Your task to perform on an android device: Open calendar and show me the first week of next month Image 0: 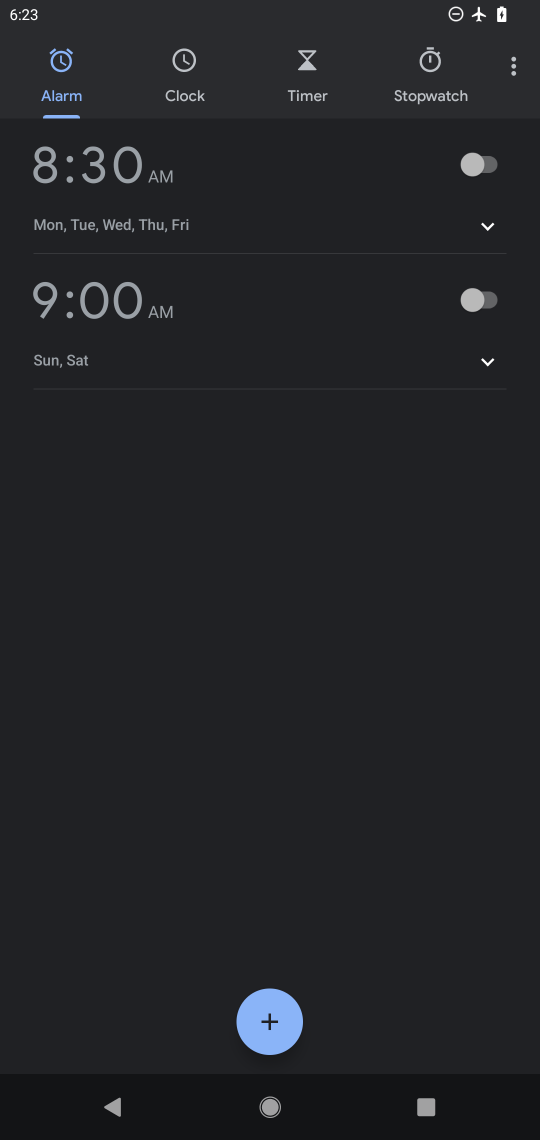
Step 0: press home button
Your task to perform on an android device: Open calendar and show me the first week of next month Image 1: 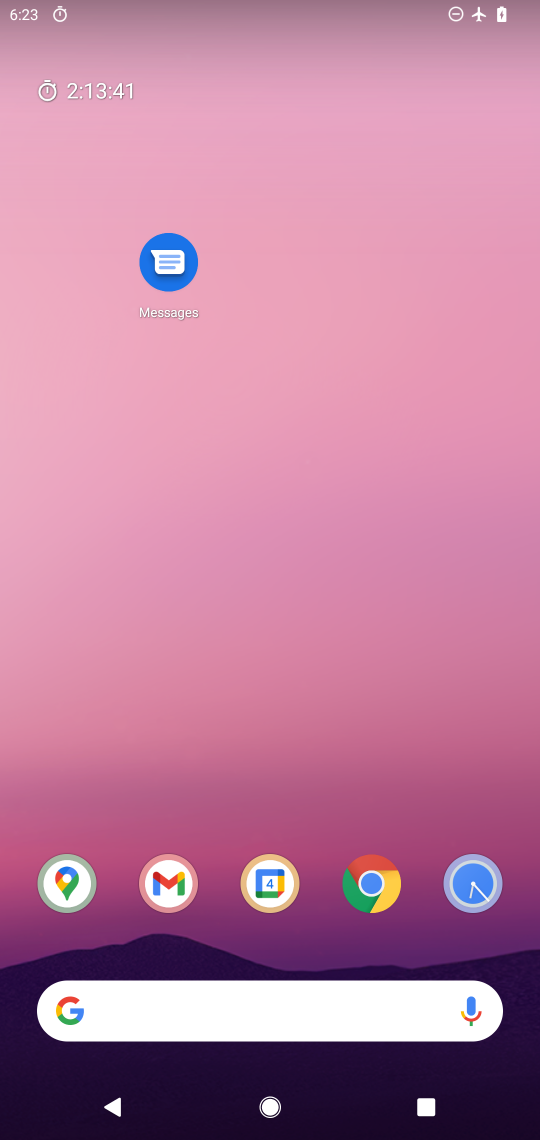
Step 1: drag from (327, 949) to (323, 72)
Your task to perform on an android device: Open calendar and show me the first week of next month Image 2: 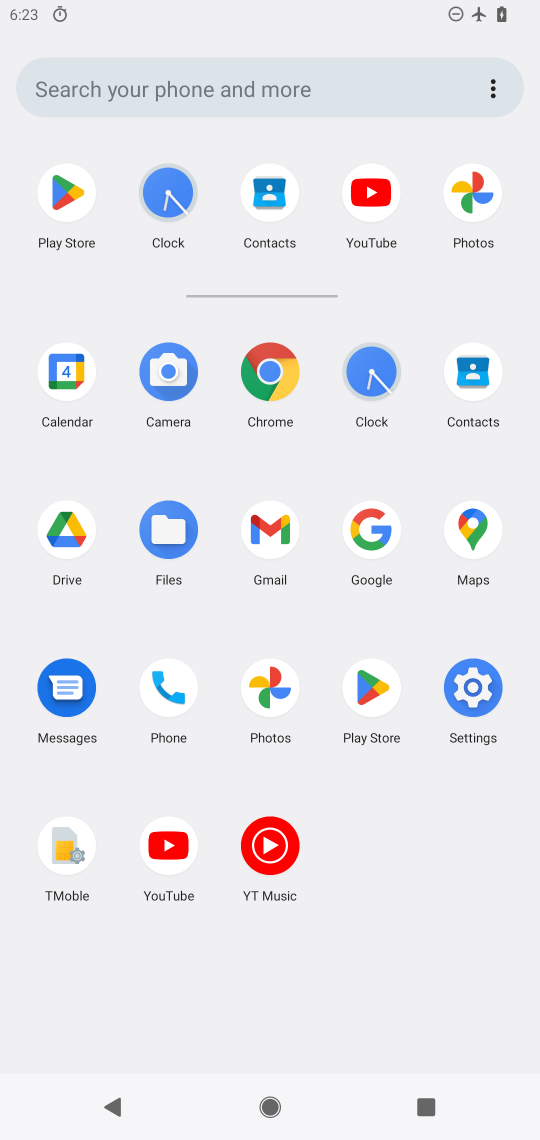
Step 2: click (56, 376)
Your task to perform on an android device: Open calendar and show me the first week of next month Image 3: 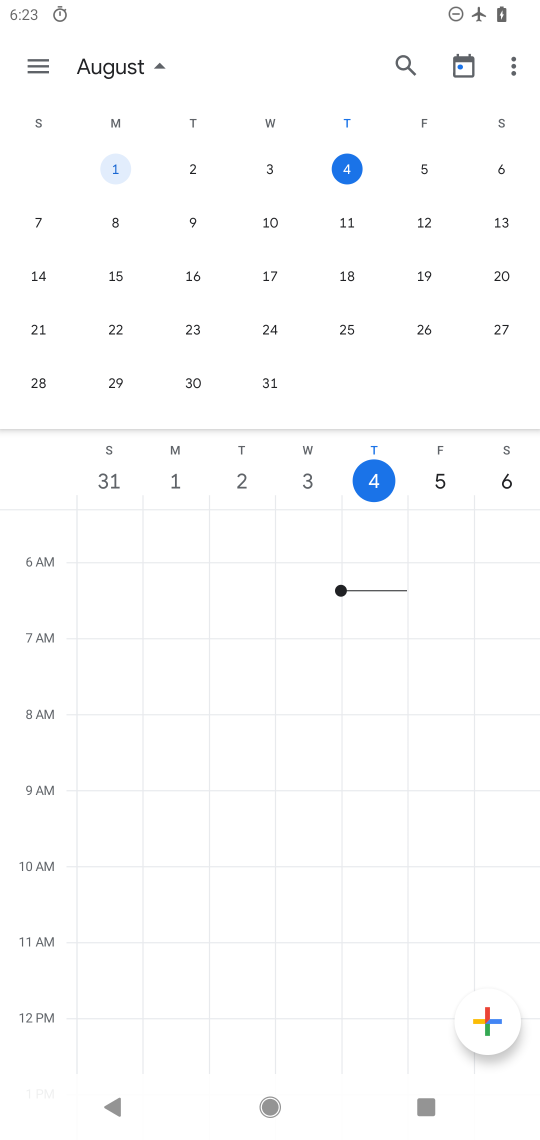
Step 3: drag from (394, 253) to (237, 254)
Your task to perform on an android device: Open calendar and show me the first week of next month Image 4: 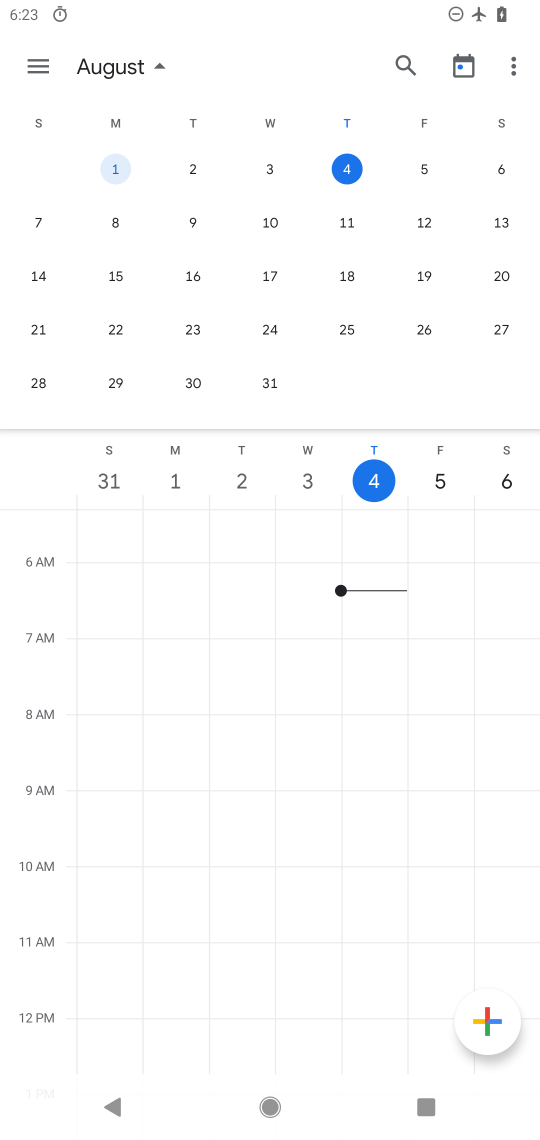
Step 4: drag from (389, 274) to (116, 275)
Your task to perform on an android device: Open calendar and show me the first week of next month Image 5: 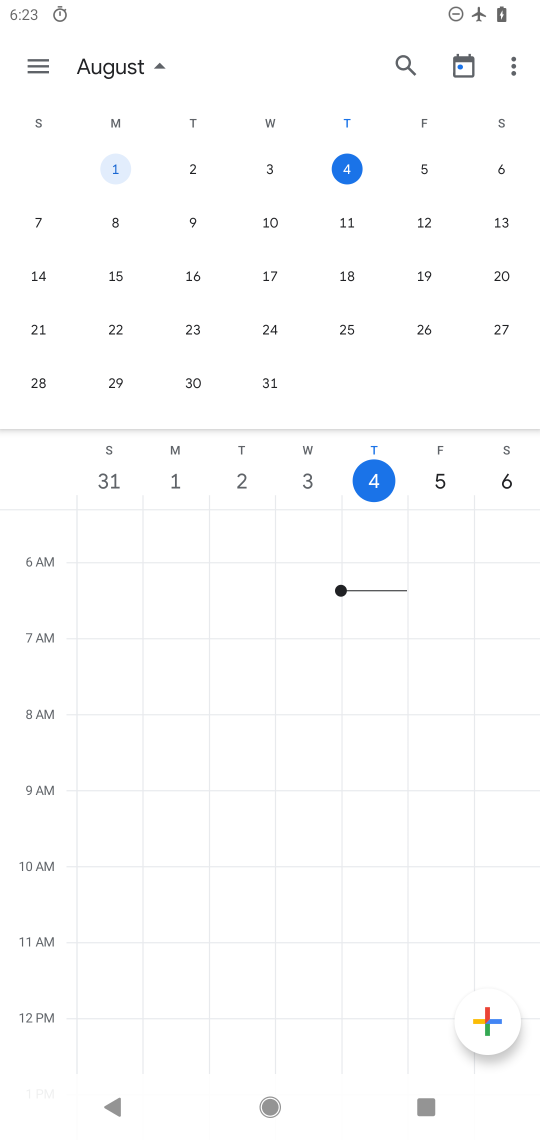
Step 5: drag from (426, 261) to (38, 250)
Your task to perform on an android device: Open calendar and show me the first week of next month Image 6: 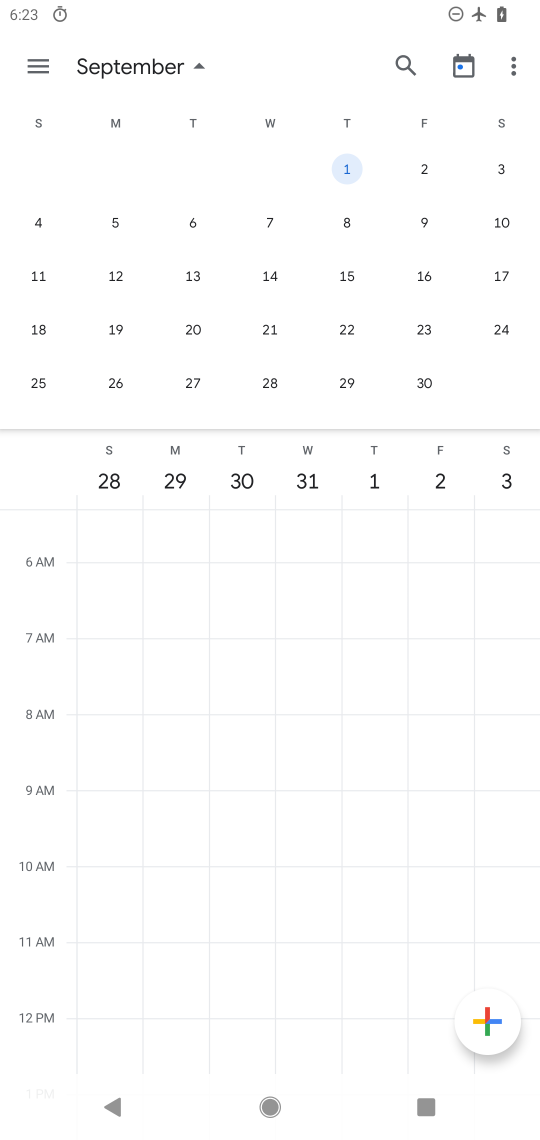
Step 6: click (114, 219)
Your task to perform on an android device: Open calendar and show me the first week of next month Image 7: 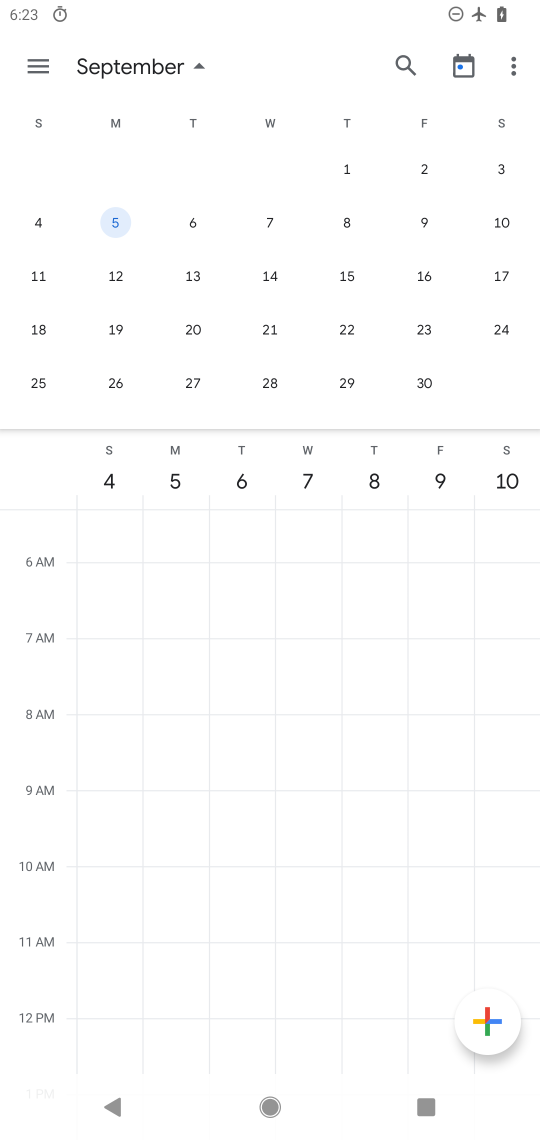
Step 7: click (39, 67)
Your task to perform on an android device: Open calendar and show me the first week of next month Image 8: 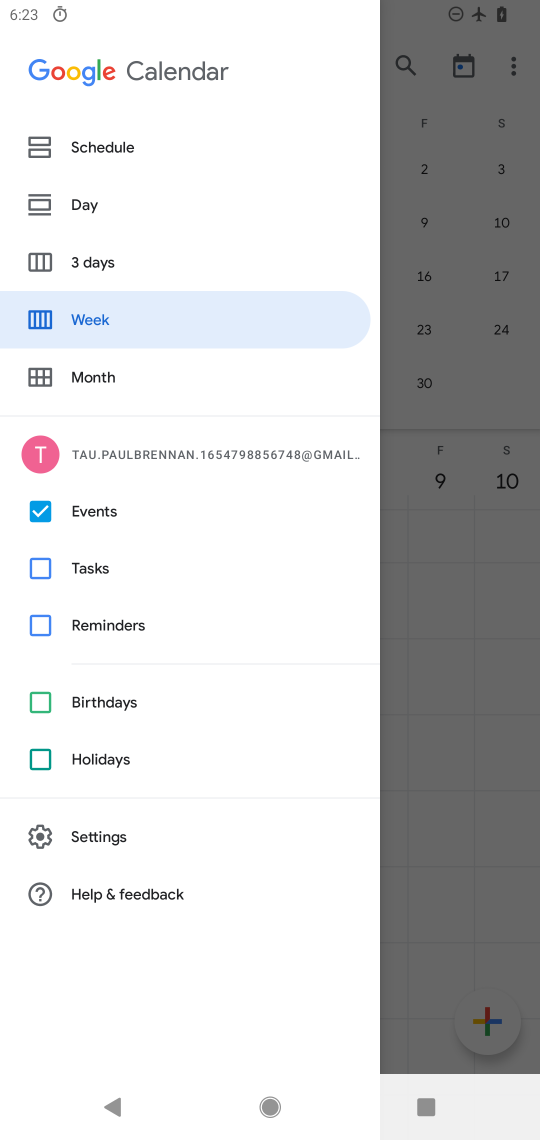
Step 8: click (79, 315)
Your task to perform on an android device: Open calendar and show me the first week of next month Image 9: 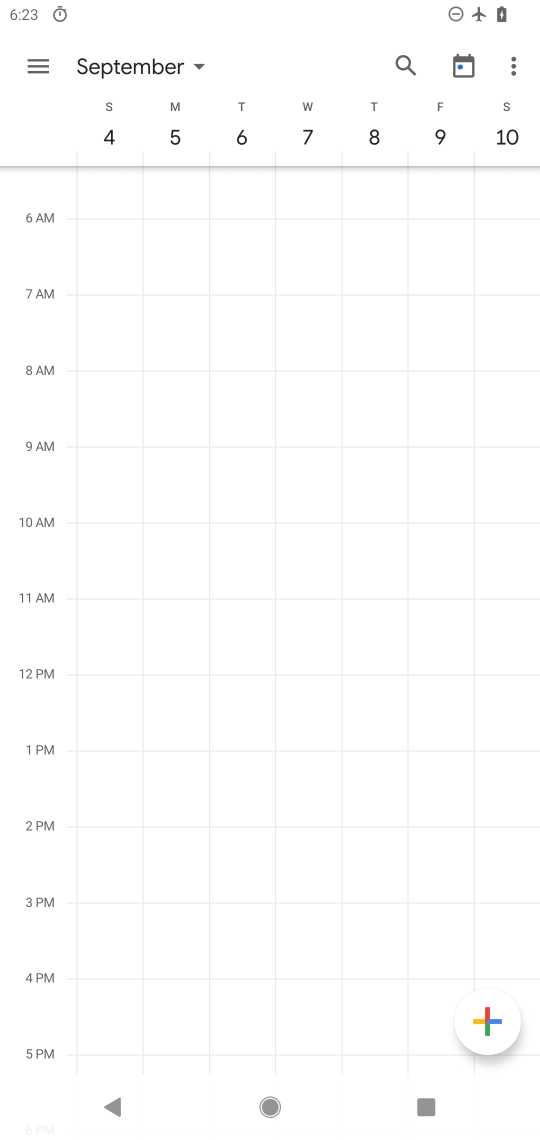
Step 9: task complete